Your task to perform on an android device: What's the weather today? Image 0: 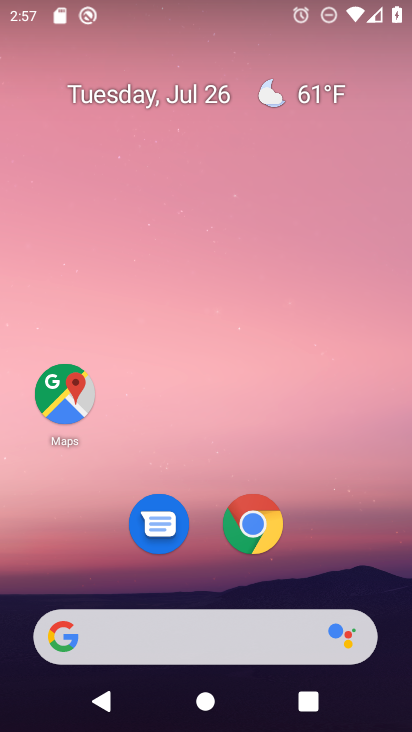
Step 0: press home button
Your task to perform on an android device: What's the weather today? Image 1: 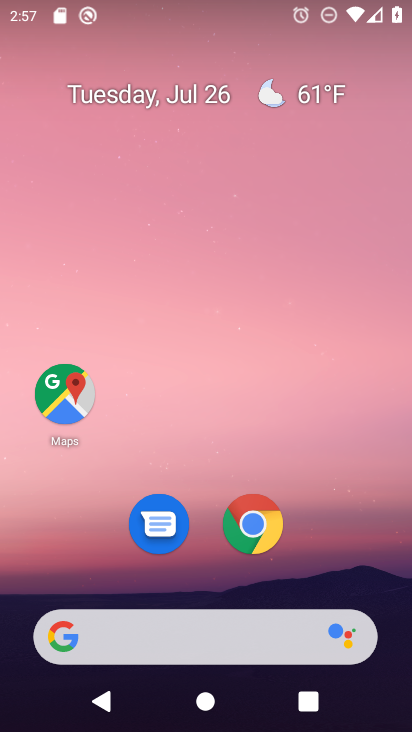
Step 1: drag from (215, 628) to (323, 87)
Your task to perform on an android device: What's the weather today? Image 2: 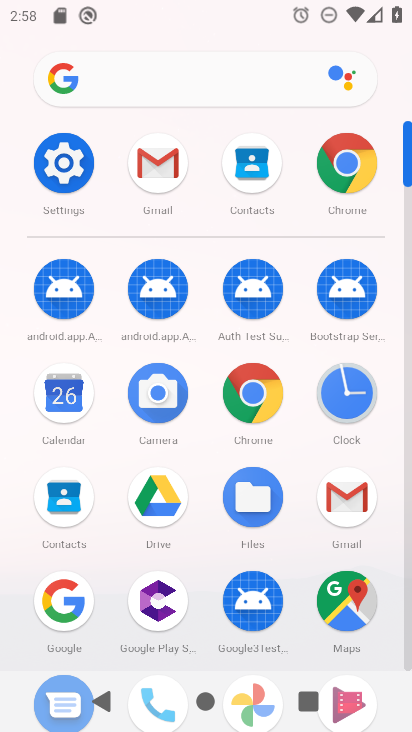
Step 2: click (71, 603)
Your task to perform on an android device: What's the weather today? Image 3: 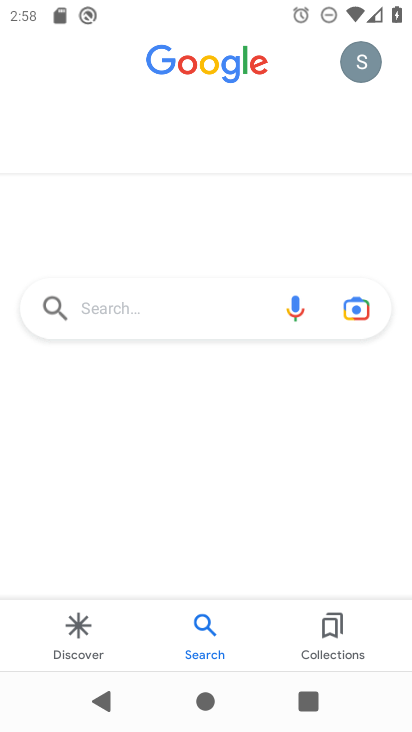
Step 3: click (205, 625)
Your task to perform on an android device: What's the weather today? Image 4: 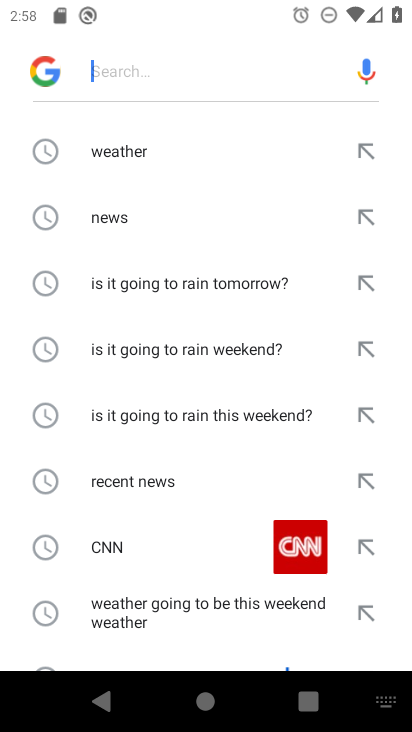
Step 4: click (139, 149)
Your task to perform on an android device: What's the weather today? Image 5: 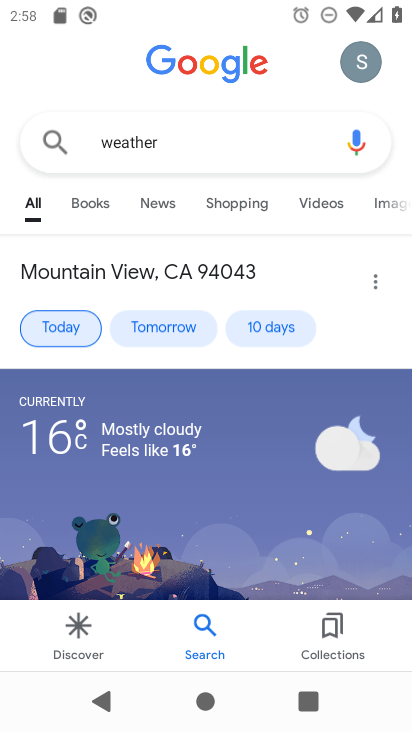
Step 5: task complete